Your task to perform on an android device: Open Yahoo.com Image 0: 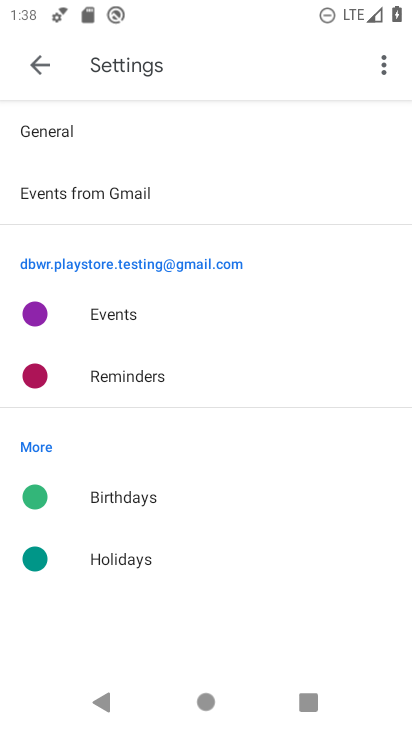
Step 0: press home button
Your task to perform on an android device: Open Yahoo.com Image 1: 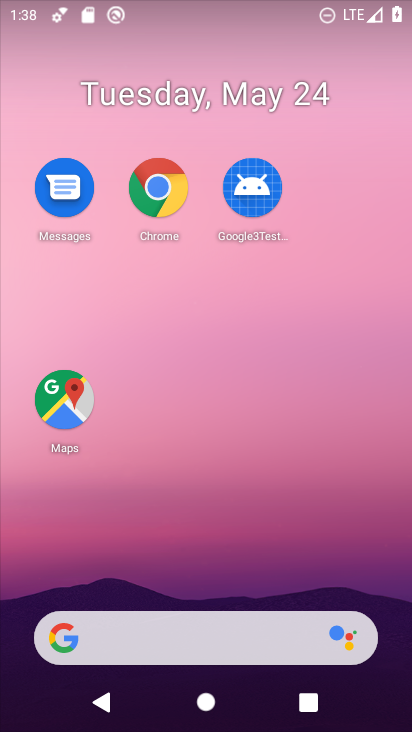
Step 1: click (154, 194)
Your task to perform on an android device: Open Yahoo.com Image 2: 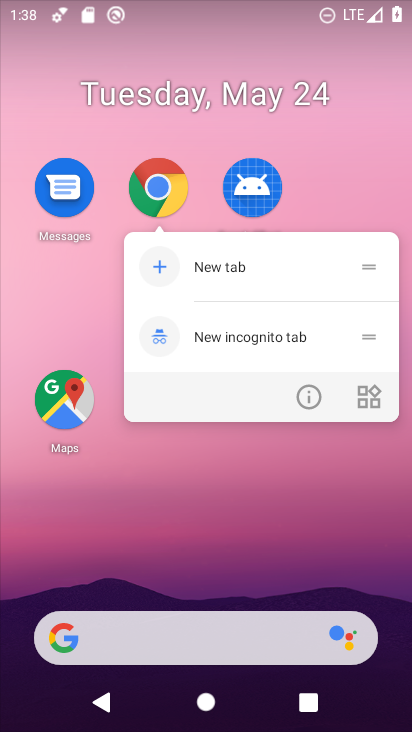
Step 2: click (156, 194)
Your task to perform on an android device: Open Yahoo.com Image 3: 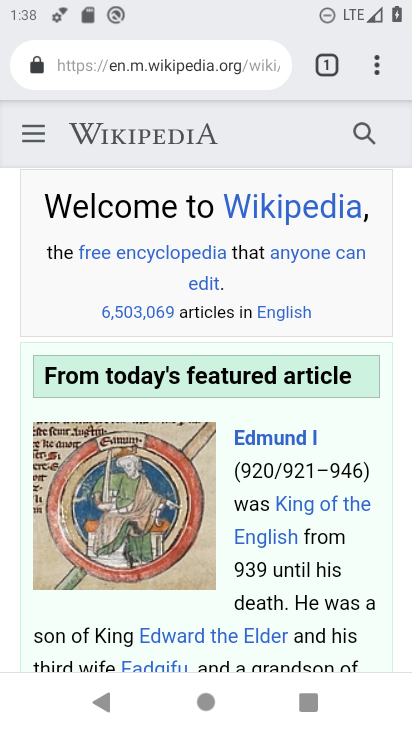
Step 3: press back button
Your task to perform on an android device: Open Yahoo.com Image 4: 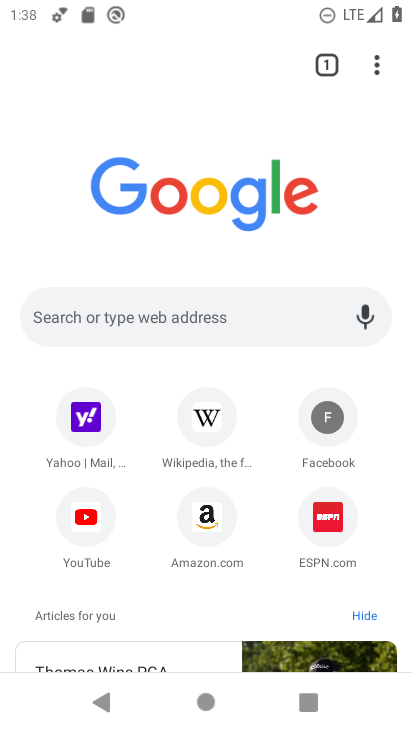
Step 4: click (93, 433)
Your task to perform on an android device: Open Yahoo.com Image 5: 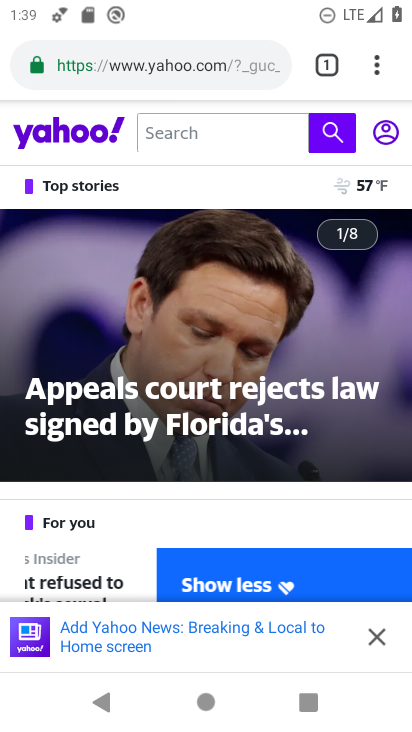
Step 5: task complete